Your task to perform on an android device: turn off translation in the chrome app Image 0: 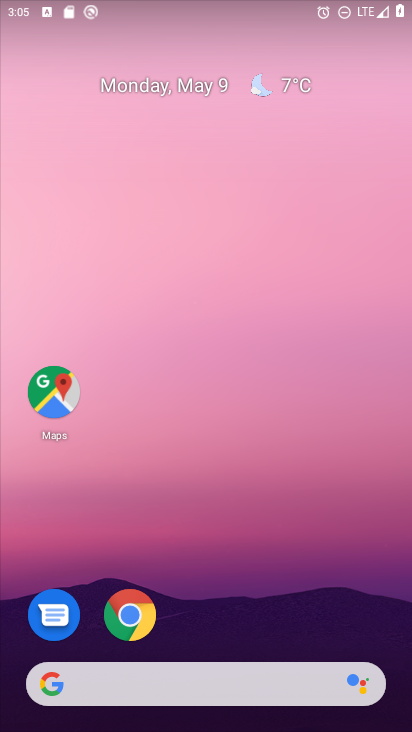
Step 0: click (124, 611)
Your task to perform on an android device: turn off translation in the chrome app Image 1: 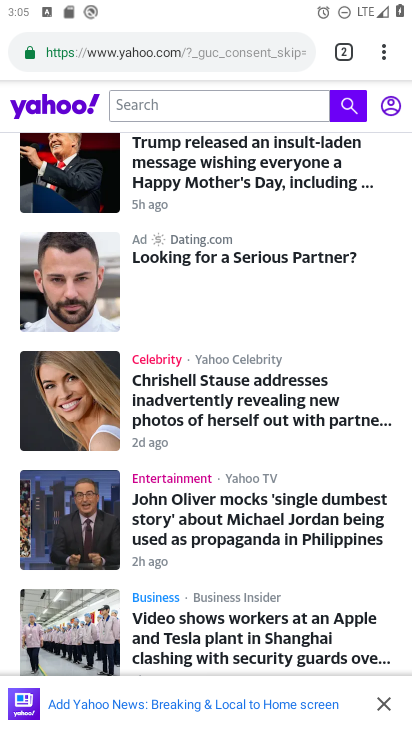
Step 1: click (382, 52)
Your task to perform on an android device: turn off translation in the chrome app Image 2: 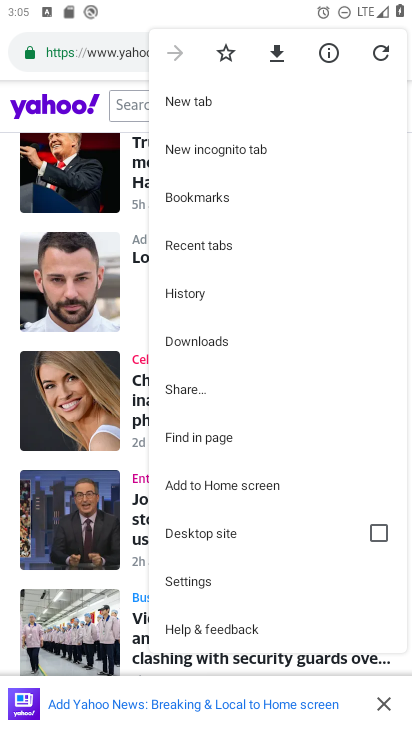
Step 2: click (187, 586)
Your task to perform on an android device: turn off translation in the chrome app Image 3: 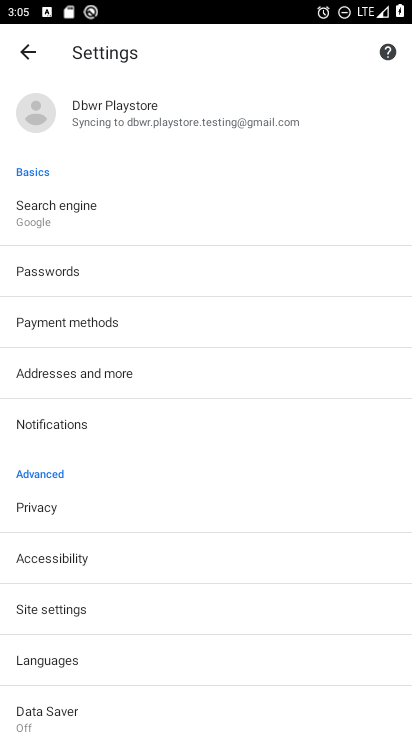
Step 3: drag from (119, 635) to (219, 114)
Your task to perform on an android device: turn off translation in the chrome app Image 4: 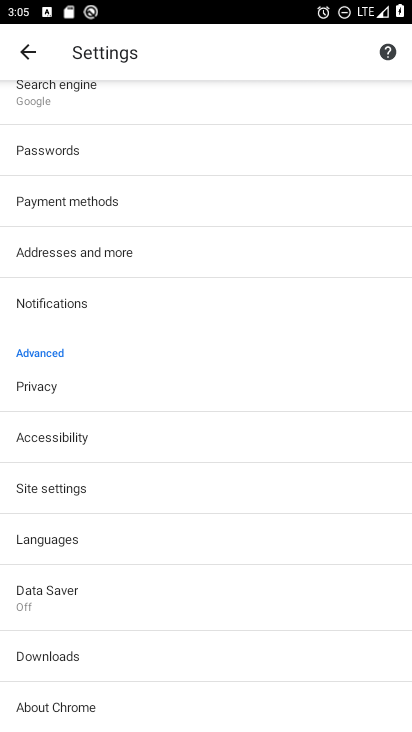
Step 4: click (42, 543)
Your task to perform on an android device: turn off translation in the chrome app Image 5: 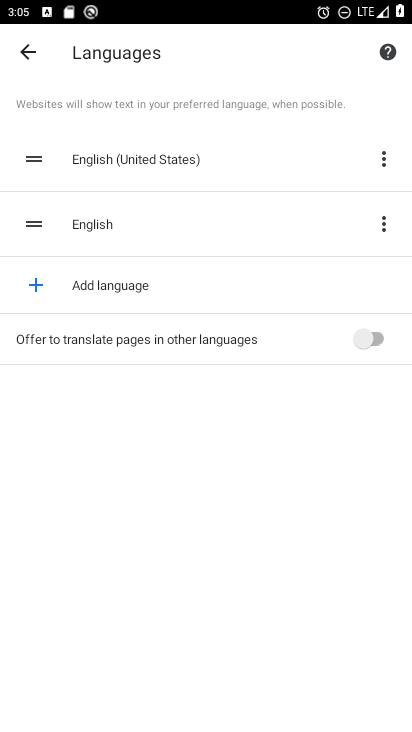
Step 5: task complete